Your task to perform on an android device: set an alarm Image 0: 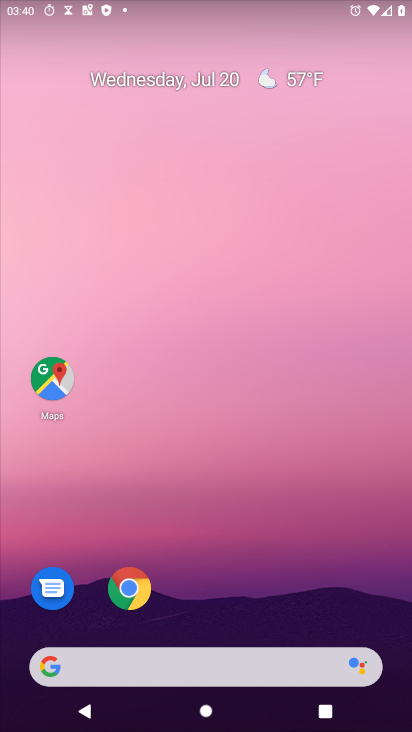
Step 0: drag from (242, 255) to (297, 2)
Your task to perform on an android device: set an alarm Image 1: 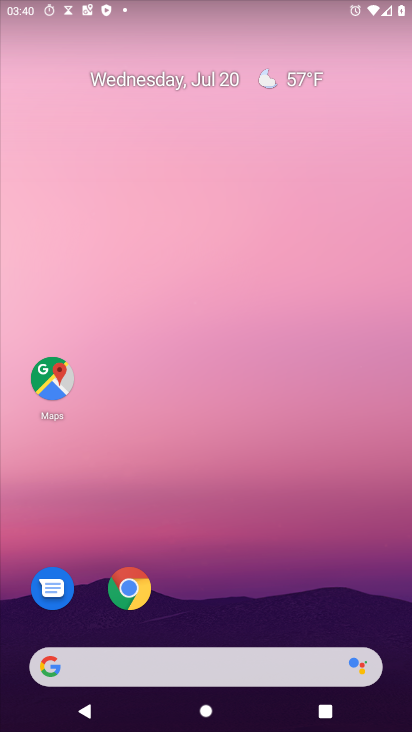
Step 1: drag from (265, 587) to (339, 0)
Your task to perform on an android device: set an alarm Image 2: 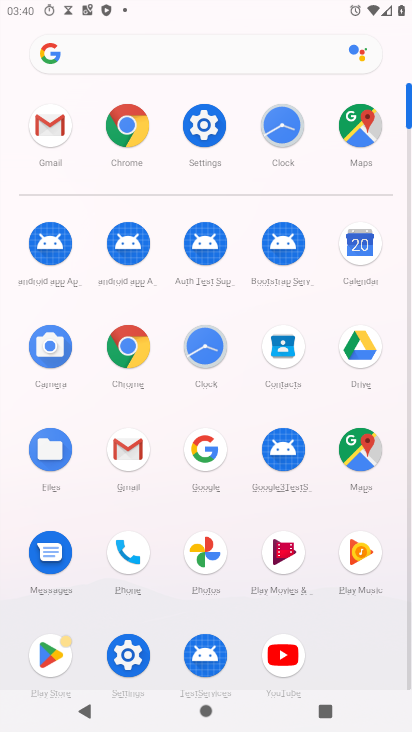
Step 2: click (215, 345)
Your task to perform on an android device: set an alarm Image 3: 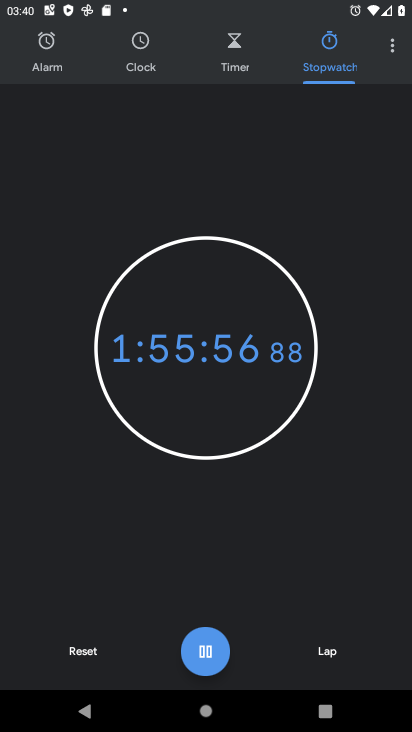
Step 3: click (63, 44)
Your task to perform on an android device: set an alarm Image 4: 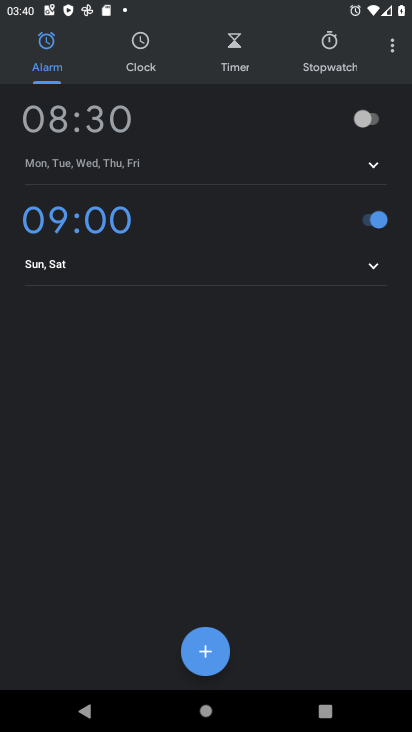
Step 4: task complete